Your task to perform on an android device: What's the weather going to be this weekend? Image 0: 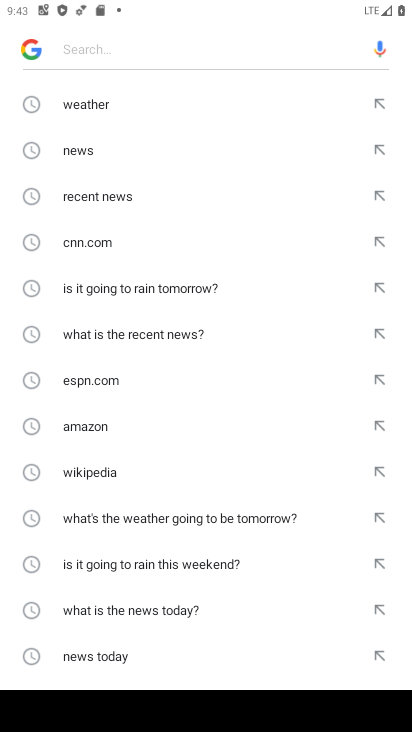
Step 0: click (104, 100)
Your task to perform on an android device: What's the weather going to be this weekend? Image 1: 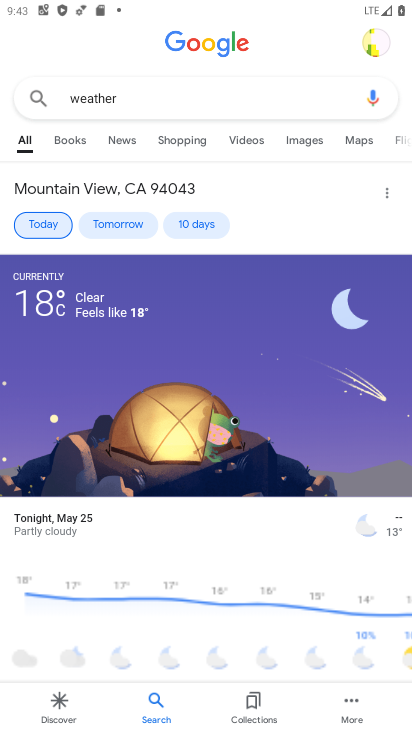
Step 1: click (176, 224)
Your task to perform on an android device: What's the weather going to be this weekend? Image 2: 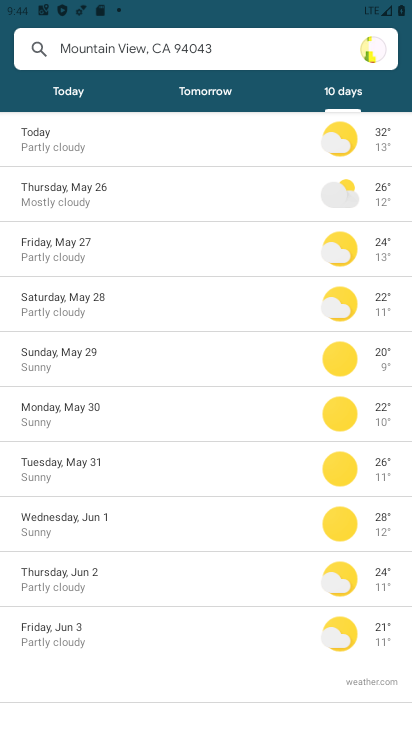
Step 2: task complete